Your task to perform on an android device: turn on the 12-hour format for clock Image 0: 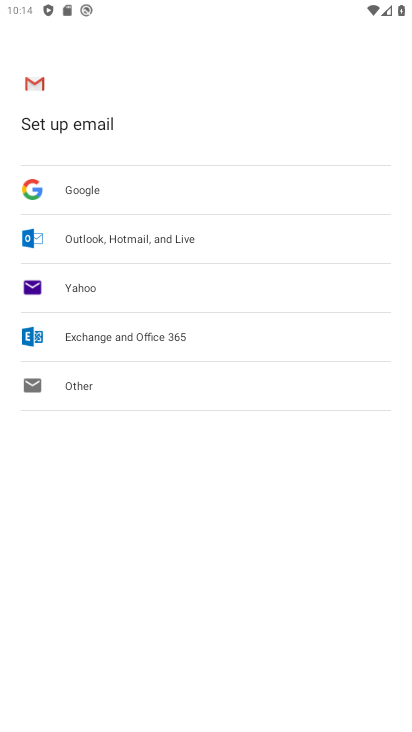
Step 0: press back button
Your task to perform on an android device: turn on the 12-hour format for clock Image 1: 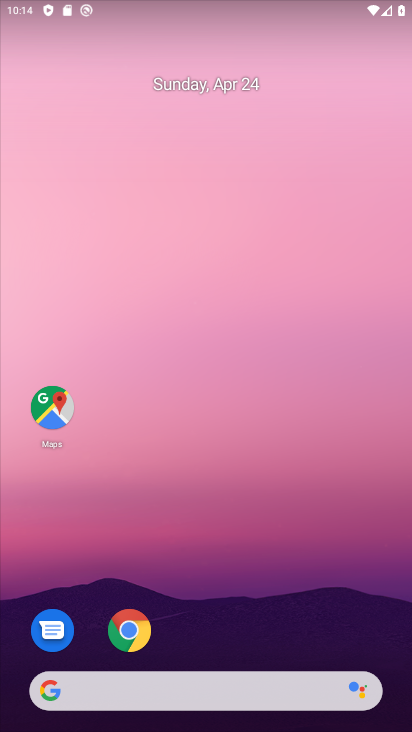
Step 1: drag from (225, 659) to (330, 122)
Your task to perform on an android device: turn on the 12-hour format for clock Image 2: 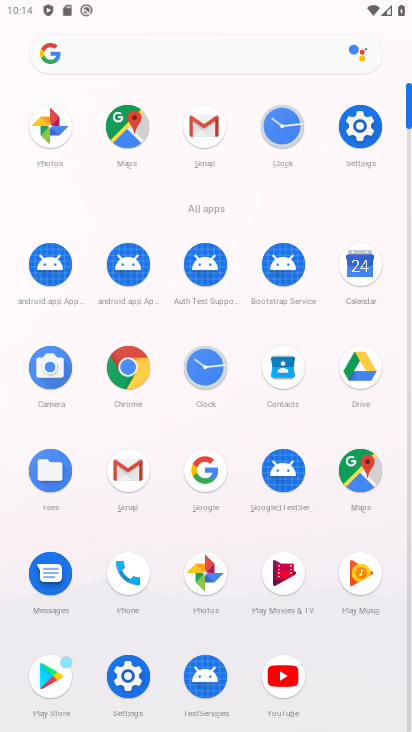
Step 2: click (189, 370)
Your task to perform on an android device: turn on the 12-hour format for clock Image 3: 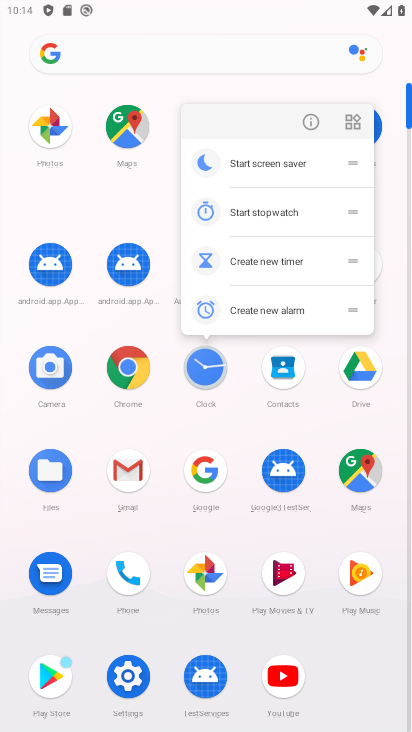
Step 3: click (200, 370)
Your task to perform on an android device: turn on the 12-hour format for clock Image 4: 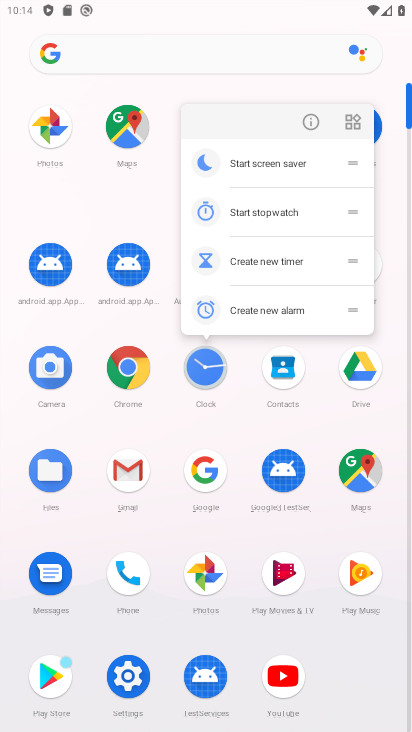
Step 4: click (206, 380)
Your task to perform on an android device: turn on the 12-hour format for clock Image 5: 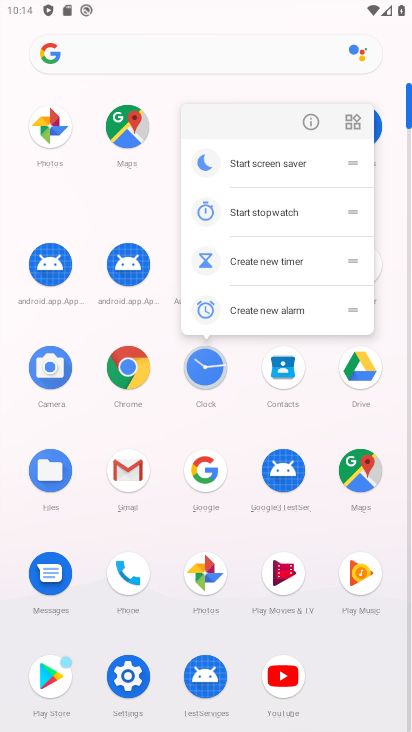
Step 5: click (210, 365)
Your task to perform on an android device: turn on the 12-hour format for clock Image 6: 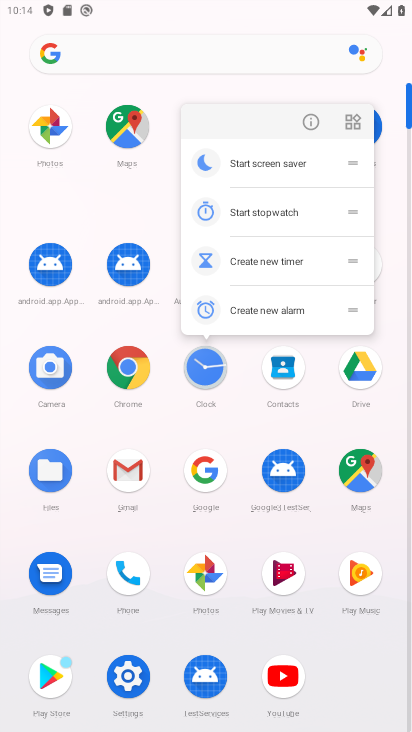
Step 6: click (210, 359)
Your task to perform on an android device: turn on the 12-hour format for clock Image 7: 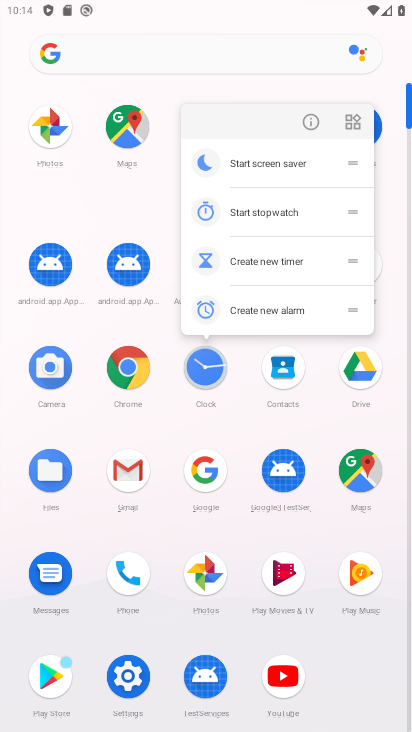
Step 7: click (208, 369)
Your task to perform on an android device: turn on the 12-hour format for clock Image 8: 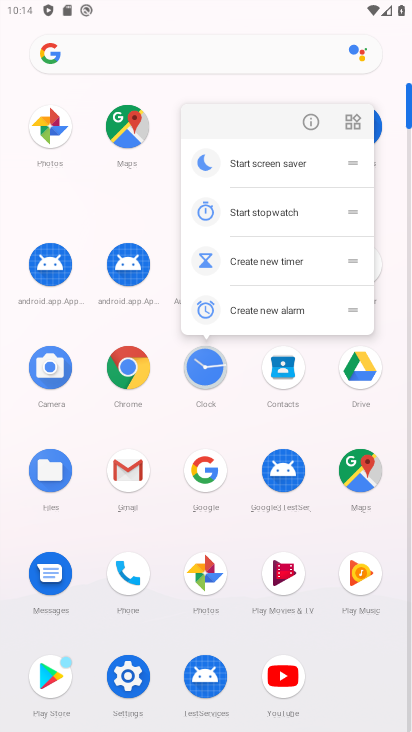
Step 8: click (202, 378)
Your task to perform on an android device: turn on the 12-hour format for clock Image 9: 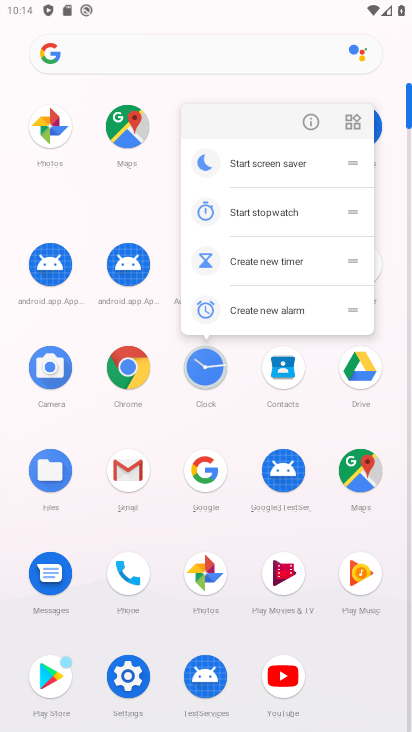
Step 9: click (216, 376)
Your task to perform on an android device: turn on the 12-hour format for clock Image 10: 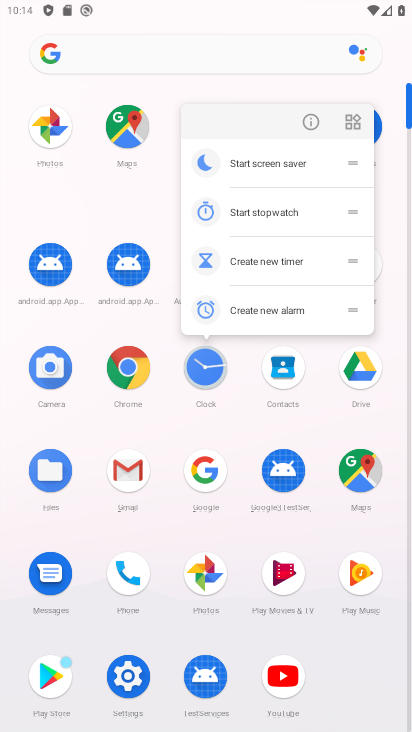
Step 10: click (216, 376)
Your task to perform on an android device: turn on the 12-hour format for clock Image 11: 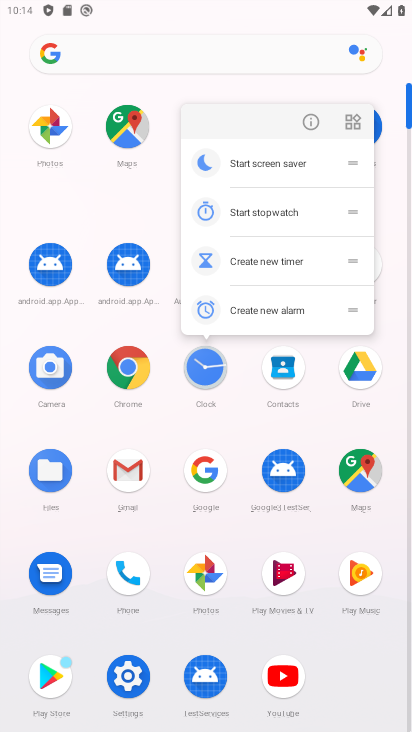
Step 11: click (191, 371)
Your task to perform on an android device: turn on the 12-hour format for clock Image 12: 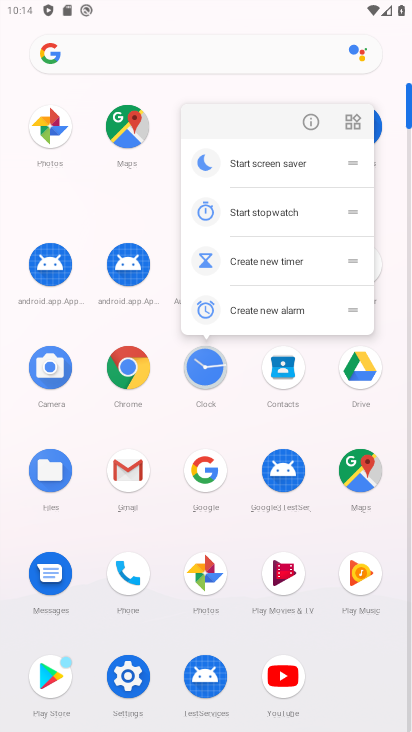
Step 12: click (197, 364)
Your task to perform on an android device: turn on the 12-hour format for clock Image 13: 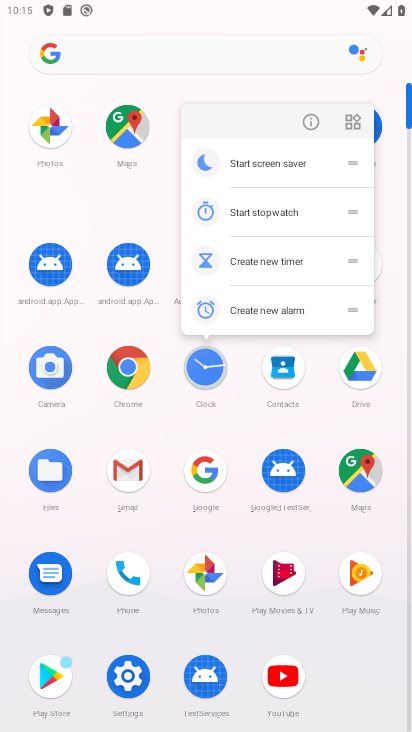
Step 13: click (218, 363)
Your task to perform on an android device: turn on the 12-hour format for clock Image 14: 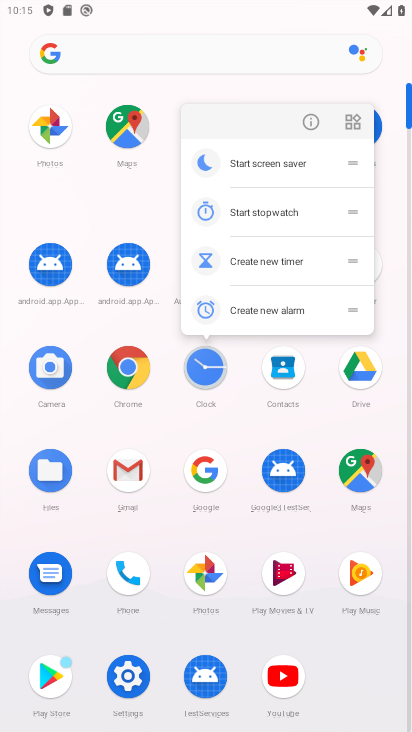
Step 14: click (218, 363)
Your task to perform on an android device: turn on the 12-hour format for clock Image 15: 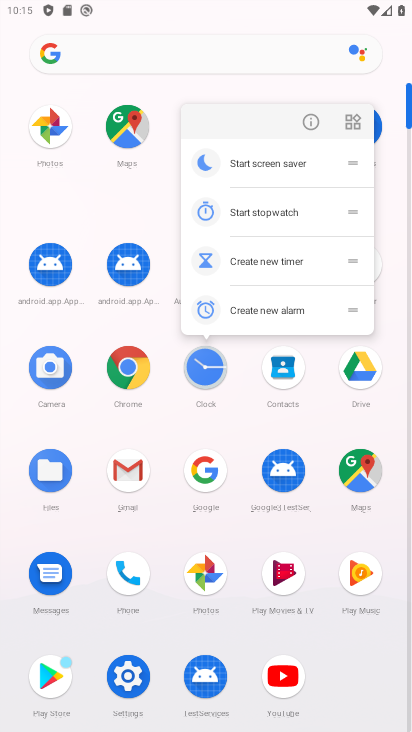
Step 15: click (214, 385)
Your task to perform on an android device: turn on the 12-hour format for clock Image 16: 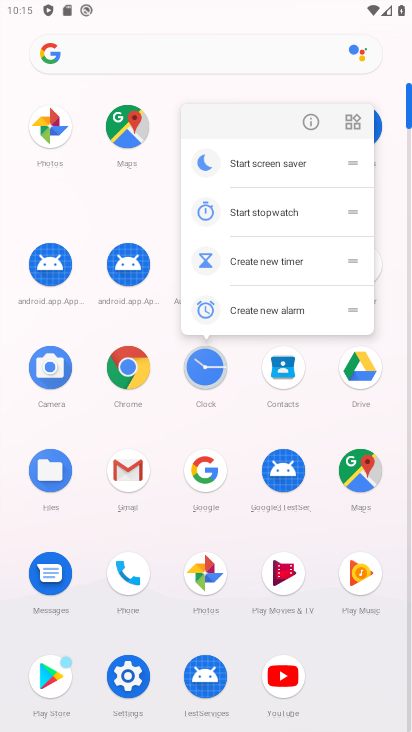
Step 16: click (206, 374)
Your task to perform on an android device: turn on the 12-hour format for clock Image 17: 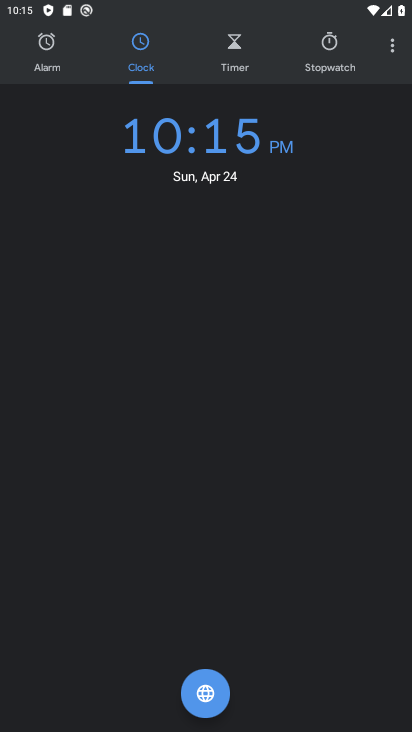
Step 17: click (387, 51)
Your task to perform on an android device: turn on the 12-hour format for clock Image 18: 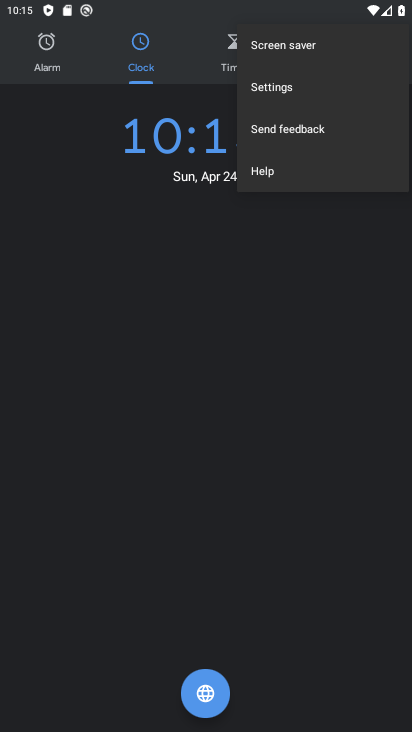
Step 18: click (360, 81)
Your task to perform on an android device: turn on the 12-hour format for clock Image 19: 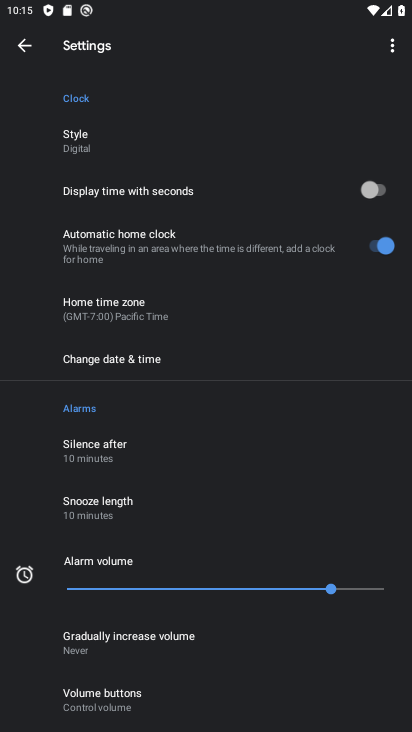
Step 19: click (229, 365)
Your task to perform on an android device: turn on the 12-hour format for clock Image 20: 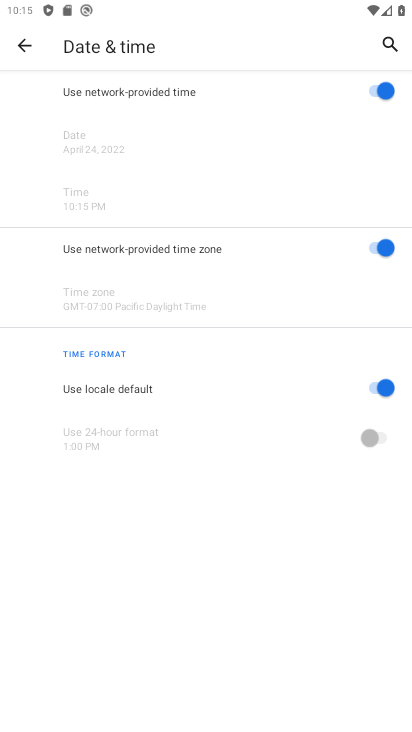
Step 20: task complete